Your task to perform on an android device: delete the emails in spam in the gmail app Image 0: 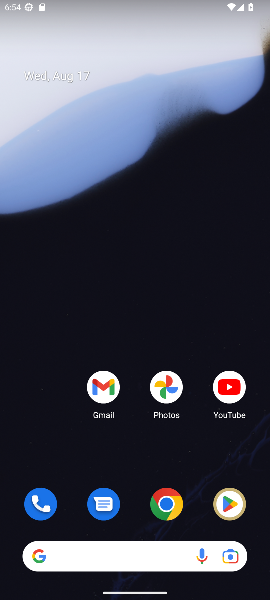
Step 0: drag from (117, 481) to (118, 71)
Your task to perform on an android device: delete the emails in spam in the gmail app Image 1: 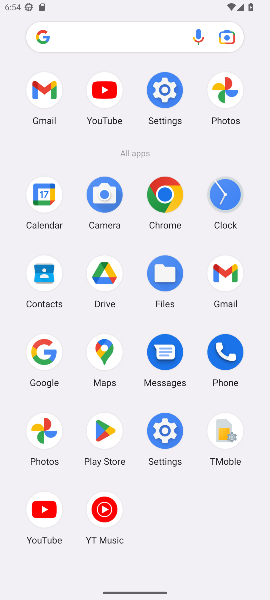
Step 1: click (239, 265)
Your task to perform on an android device: delete the emails in spam in the gmail app Image 2: 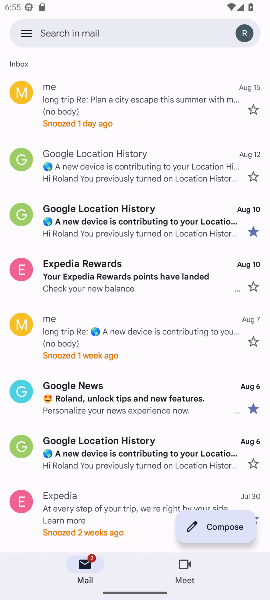
Step 2: click (16, 37)
Your task to perform on an android device: delete the emails in spam in the gmail app Image 3: 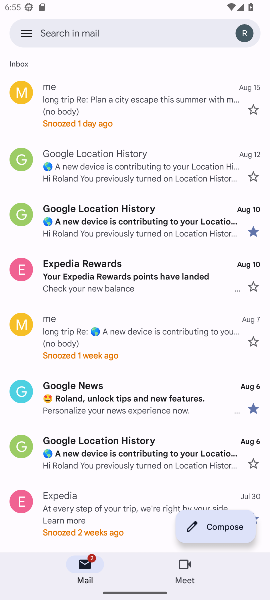
Step 3: click (31, 37)
Your task to perform on an android device: delete the emails in spam in the gmail app Image 4: 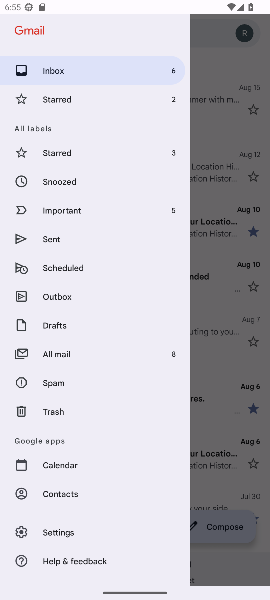
Step 4: click (92, 378)
Your task to perform on an android device: delete the emails in spam in the gmail app Image 5: 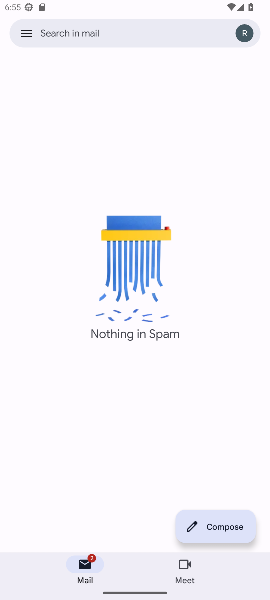
Step 5: task complete